Your task to perform on an android device: open sync settings in chrome Image 0: 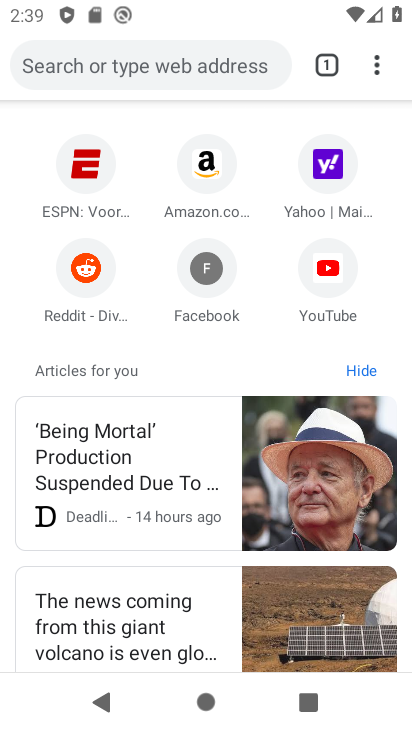
Step 0: press home button
Your task to perform on an android device: open sync settings in chrome Image 1: 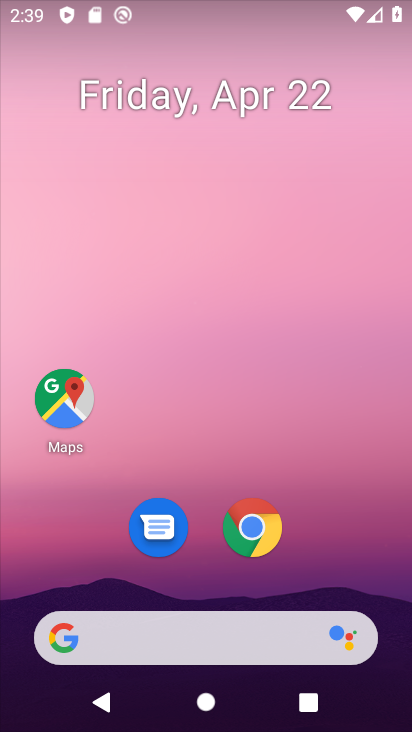
Step 1: drag from (398, 616) to (245, 68)
Your task to perform on an android device: open sync settings in chrome Image 2: 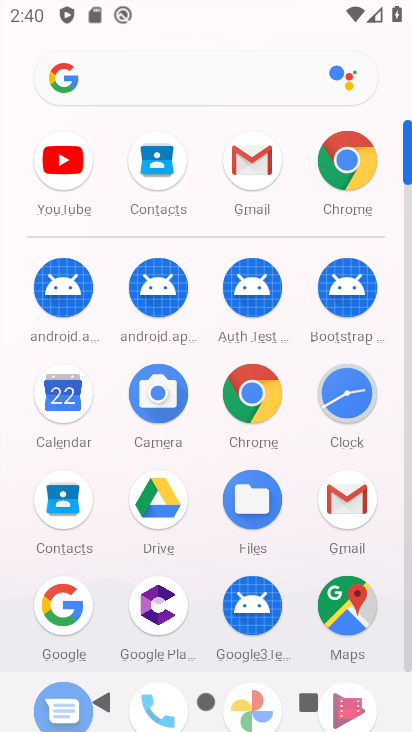
Step 2: click (344, 173)
Your task to perform on an android device: open sync settings in chrome Image 3: 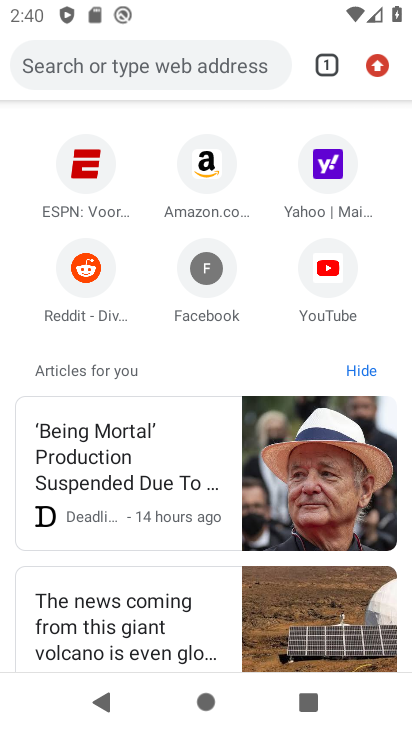
Step 3: click (372, 69)
Your task to perform on an android device: open sync settings in chrome Image 4: 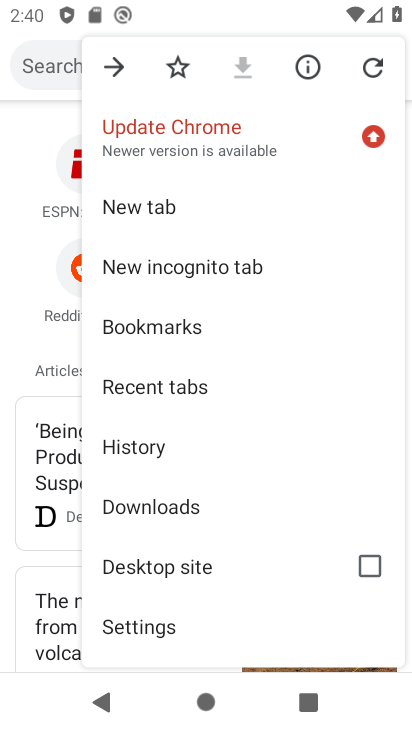
Step 4: click (169, 633)
Your task to perform on an android device: open sync settings in chrome Image 5: 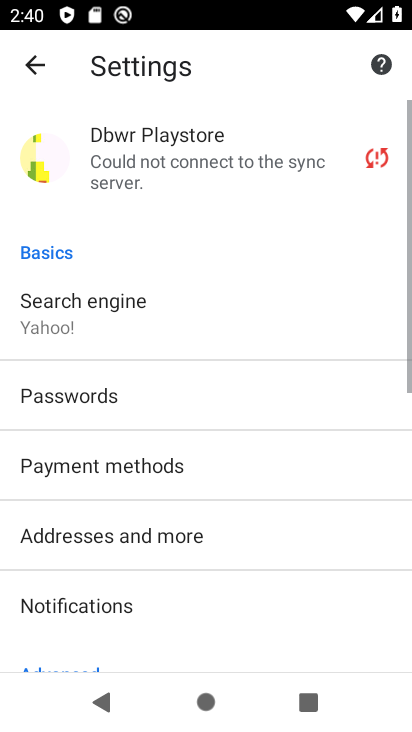
Step 5: drag from (172, 629) to (246, 250)
Your task to perform on an android device: open sync settings in chrome Image 6: 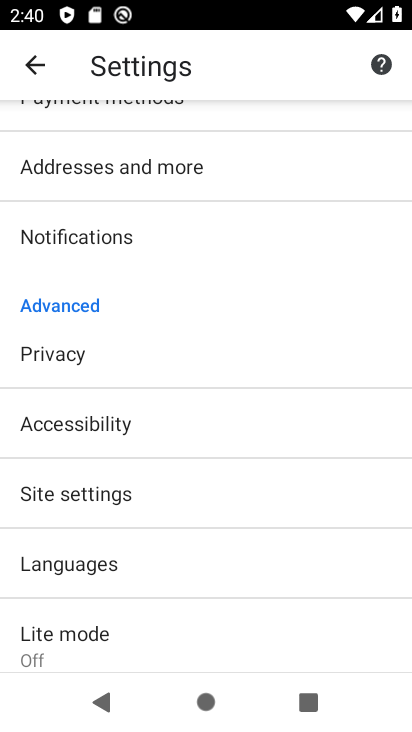
Step 6: click (86, 493)
Your task to perform on an android device: open sync settings in chrome Image 7: 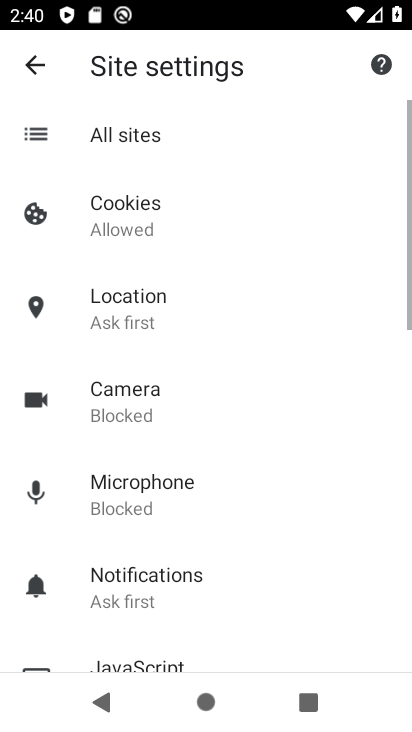
Step 7: drag from (90, 628) to (222, 171)
Your task to perform on an android device: open sync settings in chrome Image 8: 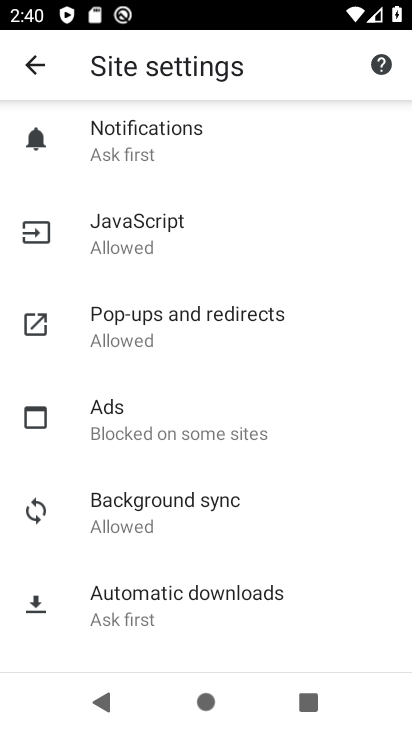
Step 8: click (162, 522)
Your task to perform on an android device: open sync settings in chrome Image 9: 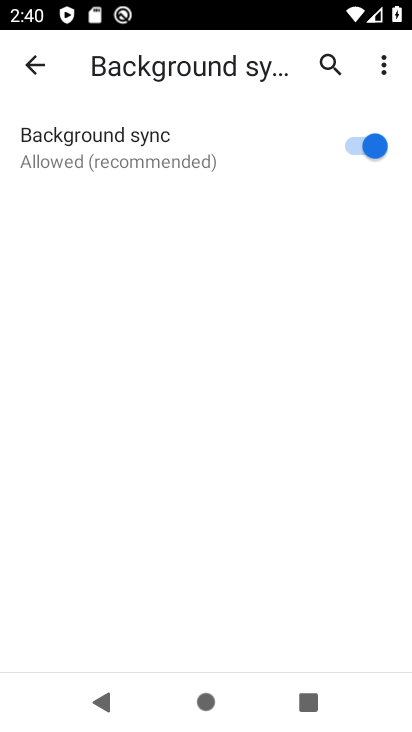
Step 9: task complete